Your task to perform on an android device: move an email to a new category in the gmail app Image 0: 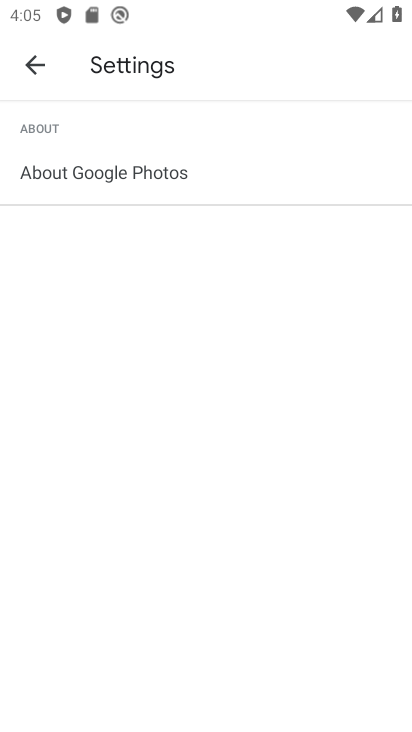
Step 0: press home button
Your task to perform on an android device: move an email to a new category in the gmail app Image 1: 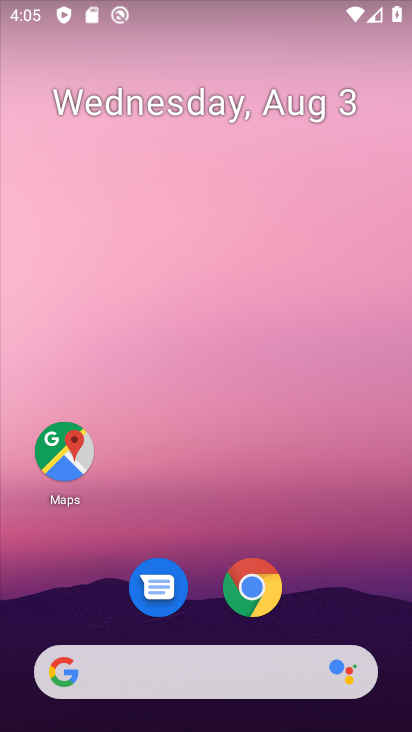
Step 1: drag from (32, 654) to (193, 183)
Your task to perform on an android device: move an email to a new category in the gmail app Image 2: 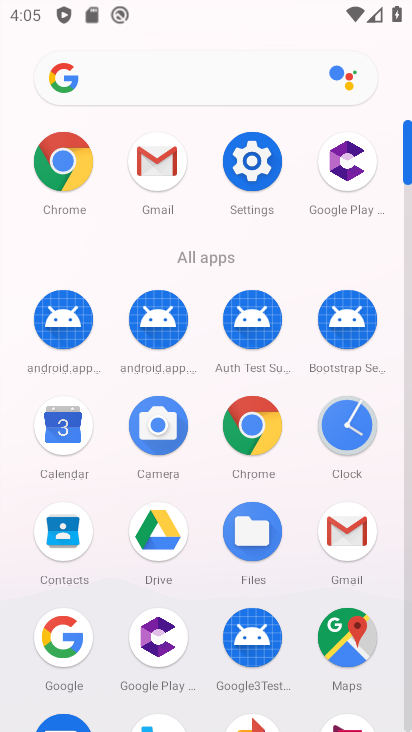
Step 2: click (169, 170)
Your task to perform on an android device: move an email to a new category in the gmail app Image 3: 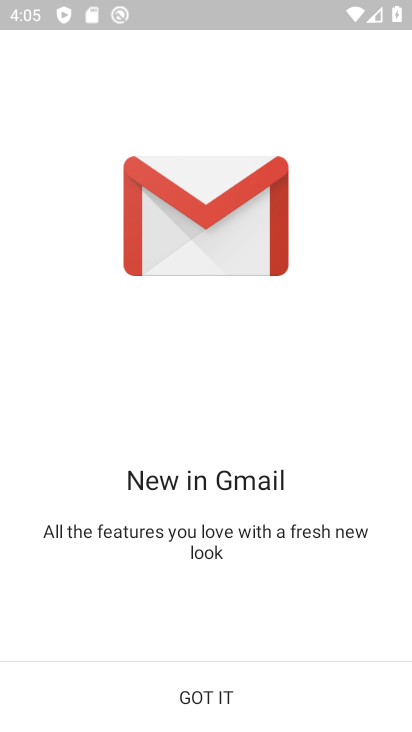
Step 3: click (201, 678)
Your task to perform on an android device: move an email to a new category in the gmail app Image 4: 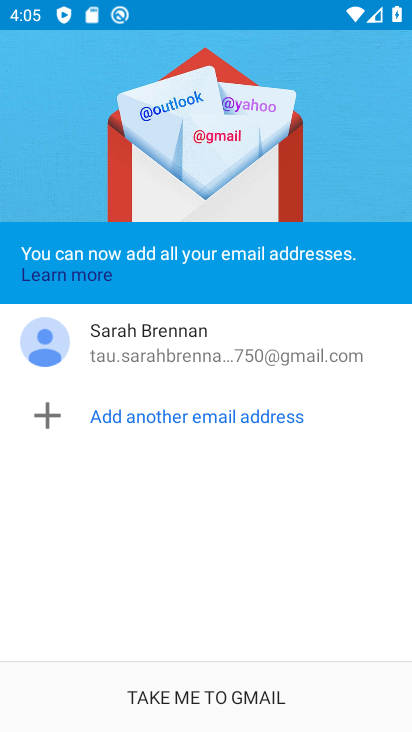
Step 4: click (165, 681)
Your task to perform on an android device: move an email to a new category in the gmail app Image 5: 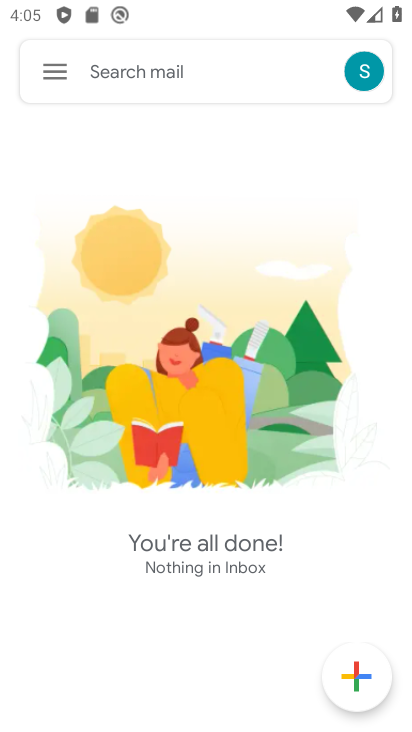
Step 5: click (44, 63)
Your task to perform on an android device: move an email to a new category in the gmail app Image 6: 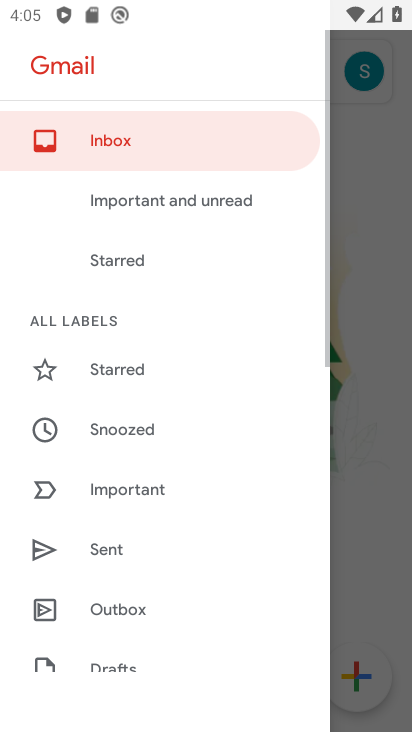
Step 6: click (94, 131)
Your task to perform on an android device: move an email to a new category in the gmail app Image 7: 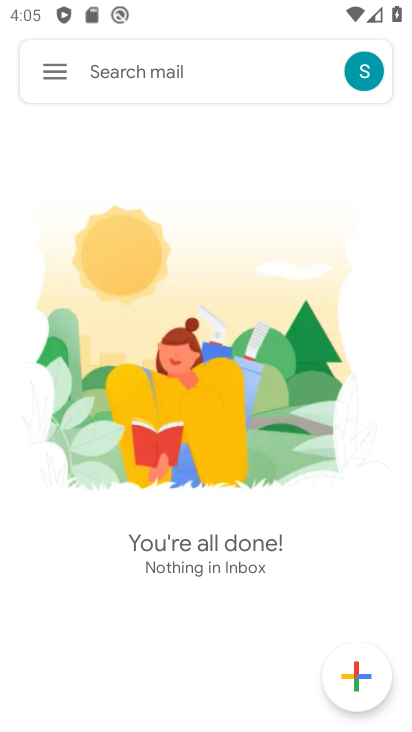
Step 7: task complete